Your task to perform on an android device: toggle data saver in the chrome app Image 0: 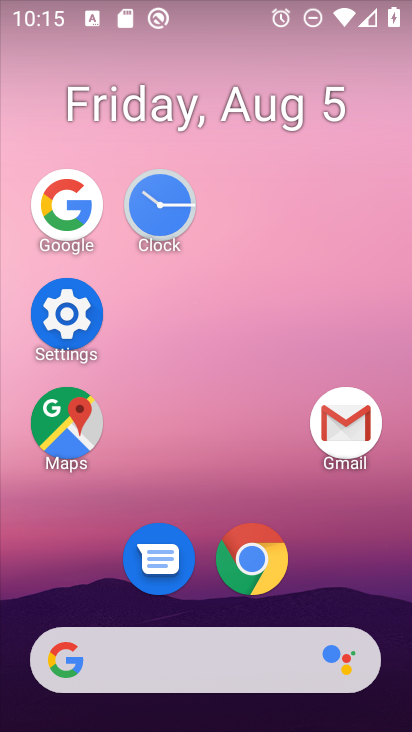
Step 0: click (269, 563)
Your task to perform on an android device: toggle data saver in the chrome app Image 1: 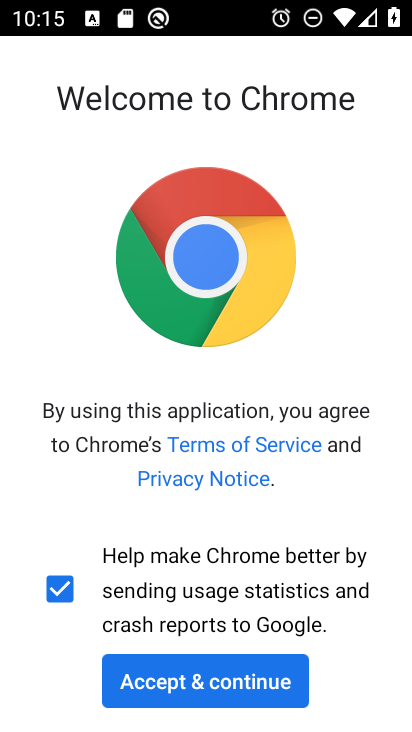
Step 1: click (293, 687)
Your task to perform on an android device: toggle data saver in the chrome app Image 2: 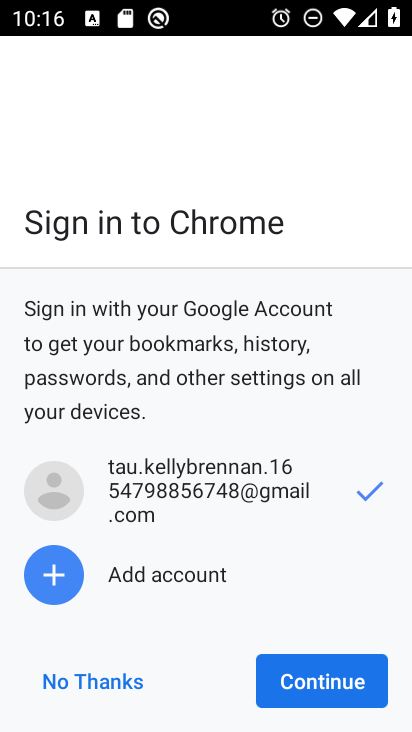
Step 2: click (327, 694)
Your task to perform on an android device: toggle data saver in the chrome app Image 3: 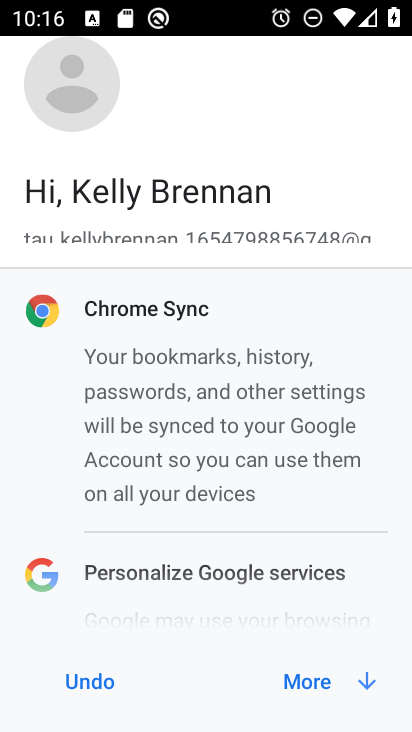
Step 3: click (329, 685)
Your task to perform on an android device: toggle data saver in the chrome app Image 4: 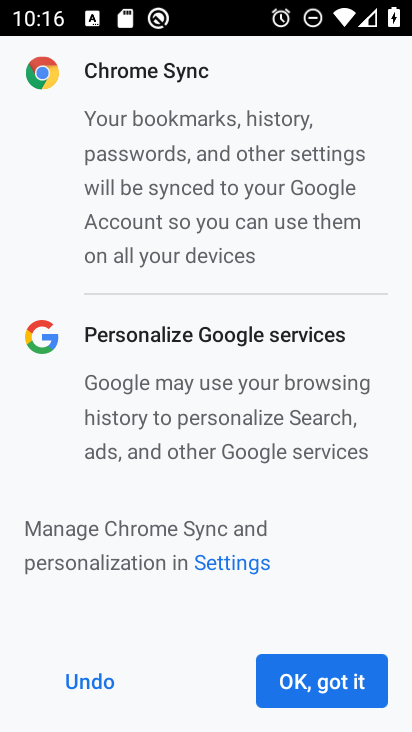
Step 4: click (329, 685)
Your task to perform on an android device: toggle data saver in the chrome app Image 5: 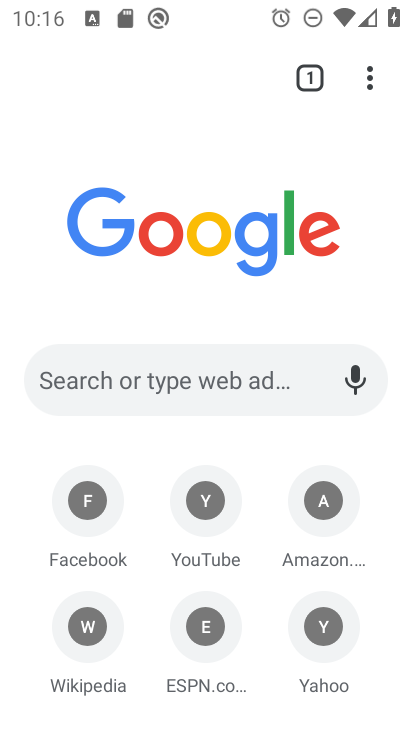
Step 5: click (369, 73)
Your task to perform on an android device: toggle data saver in the chrome app Image 6: 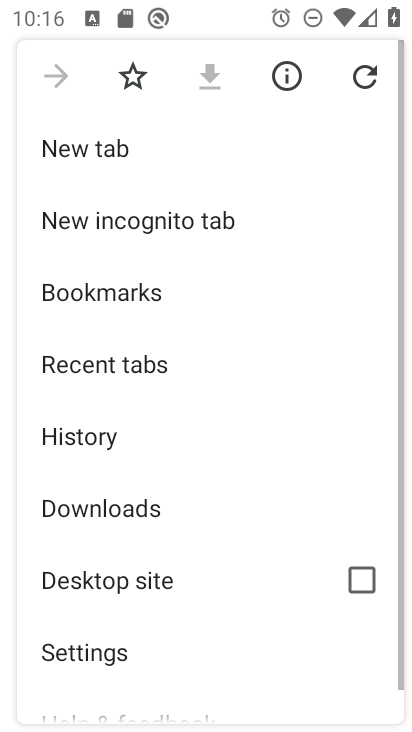
Step 6: drag from (177, 597) to (137, 197)
Your task to perform on an android device: toggle data saver in the chrome app Image 7: 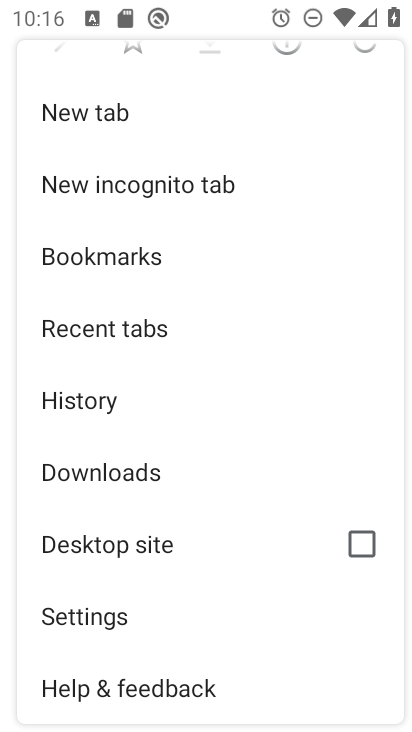
Step 7: click (77, 624)
Your task to perform on an android device: toggle data saver in the chrome app Image 8: 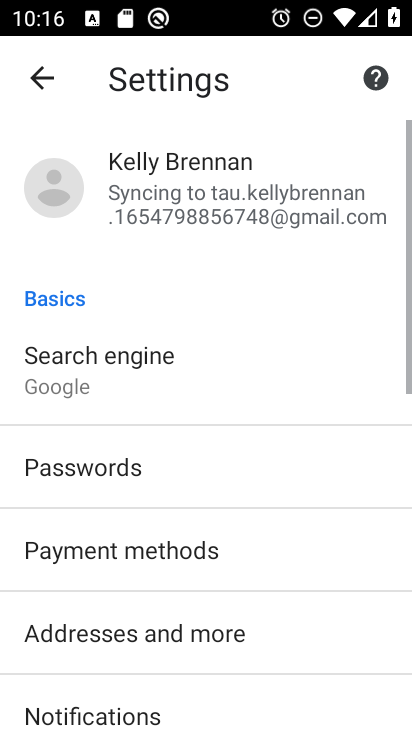
Step 8: drag from (80, 602) to (102, 154)
Your task to perform on an android device: toggle data saver in the chrome app Image 9: 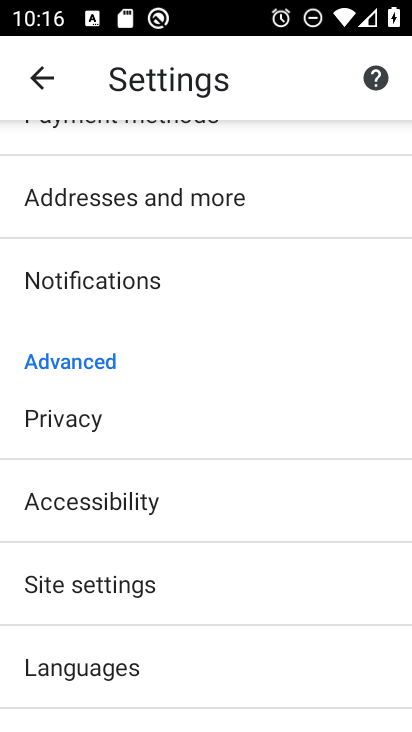
Step 9: drag from (216, 554) to (174, 210)
Your task to perform on an android device: toggle data saver in the chrome app Image 10: 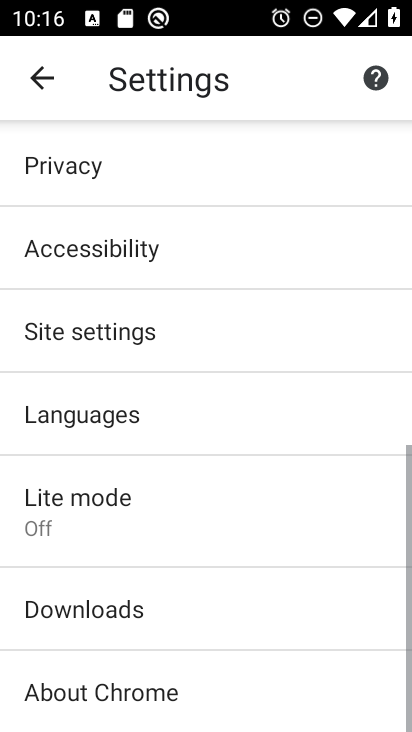
Step 10: click (160, 493)
Your task to perform on an android device: toggle data saver in the chrome app Image 11: 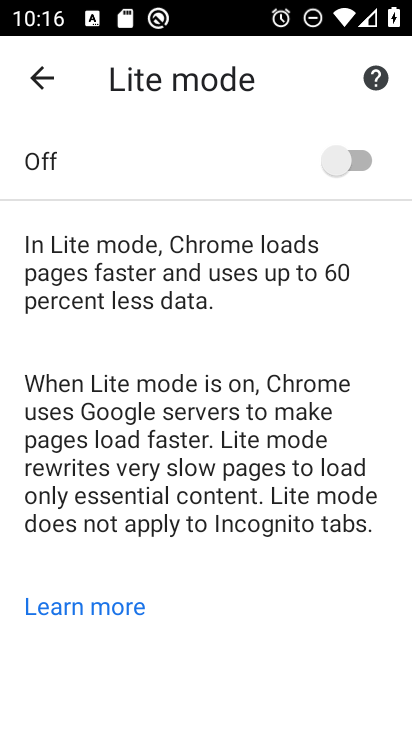
Step 11: click (357, 163)
Your task to perform on an android device: toggle data saver in the chrome app Image 12: 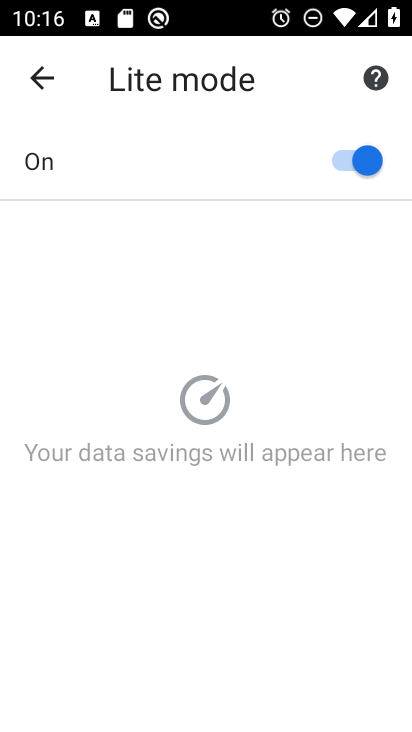
Step 12: task complete